Your task to perform on an android device: Find coffee shops on Maps Image 0: 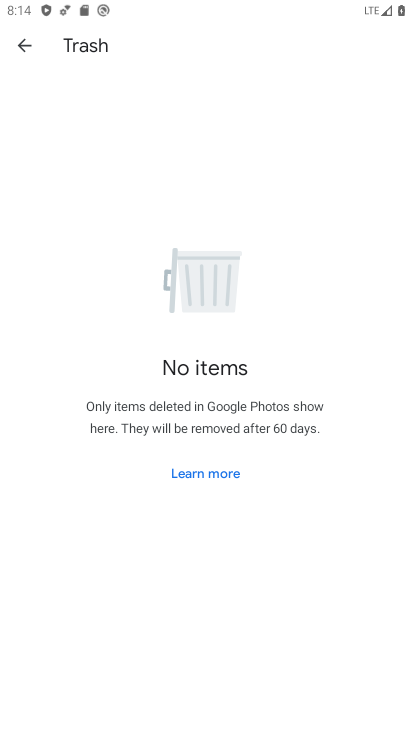
Step 0: press home button
Your task to perform on an android device: Find coffee shops on Maps Image 1: 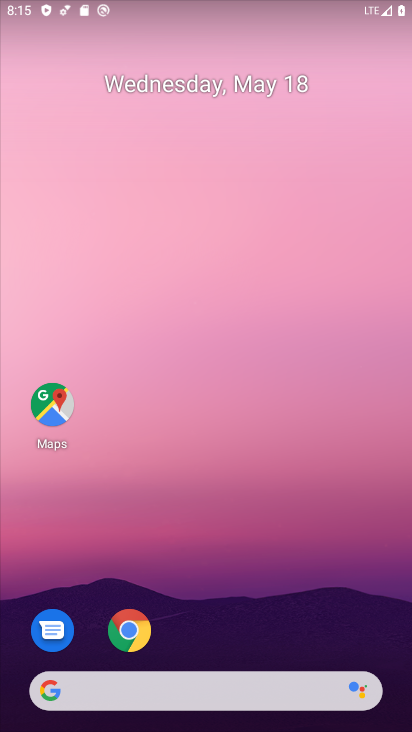
Step 1: click (54, 409)
Your task to perform on an android device: Find coffee shops on Maps Image 2: 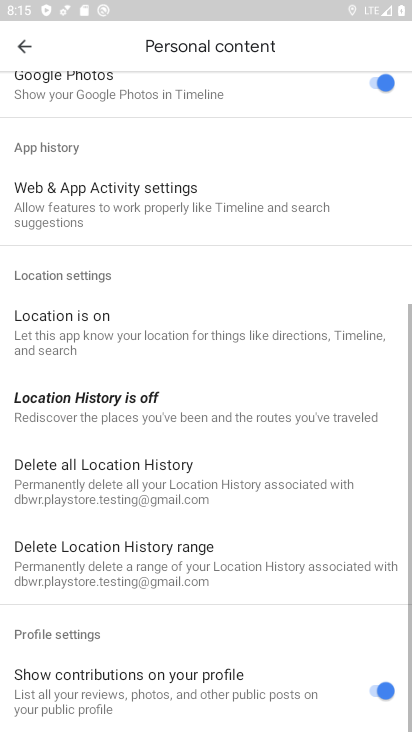
Step 2: click (24, 46)
Your task to perform on an android device: Find coffee shops on Maps Image 3: 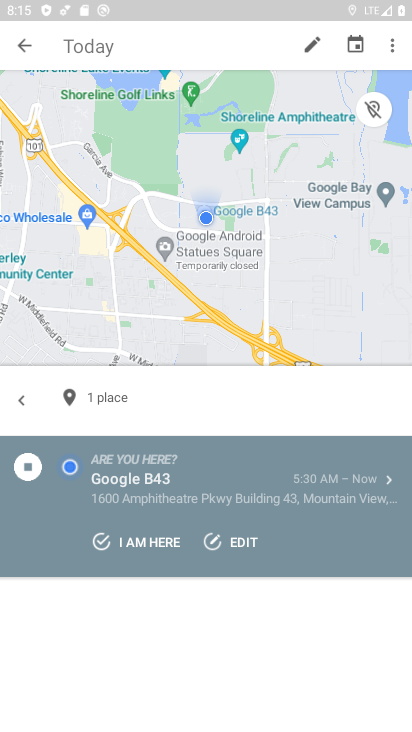
Step 3: click (24, 45)
Your task to perform on an android device: Find coffee shops on Maps Image 4: 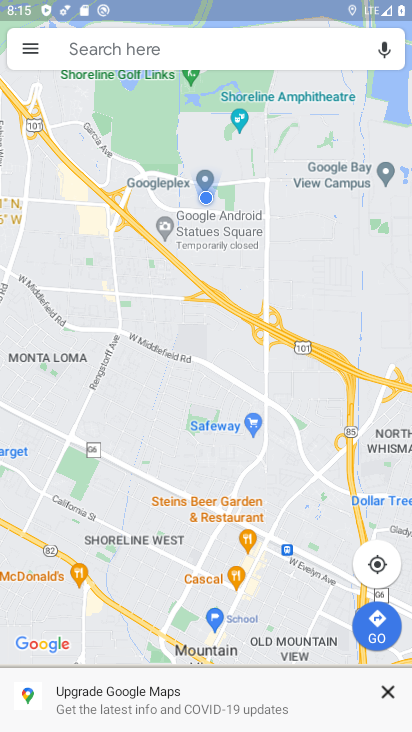
Step 4: click (122, 37)
Your task to perform on an android device: Find coffee shops on Maps Image 5: 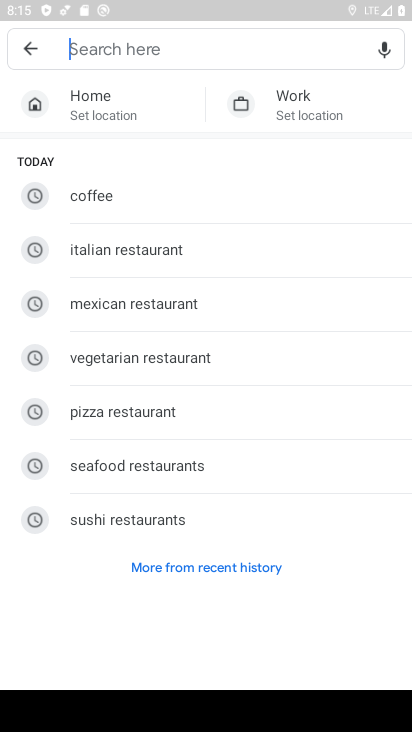
Step 5: click (106, 192)
Your task to perform on an android device: Find coffee shops on Maps Image 6: 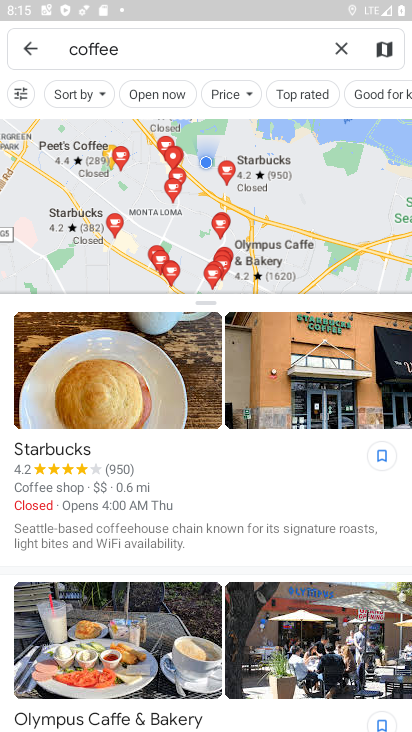
Step 6: task complete